Your task to perform on an android device: search for starred emails in the gmail app Image 0: 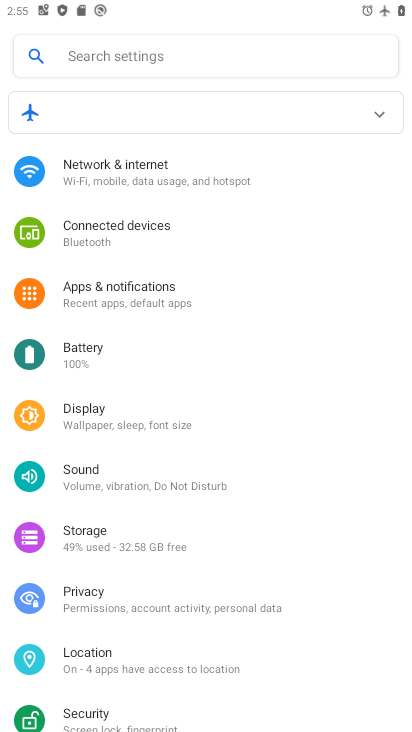
Step 0: press home button
Your task to perform on an android device: search for starred emails in the gmail app Image 1: 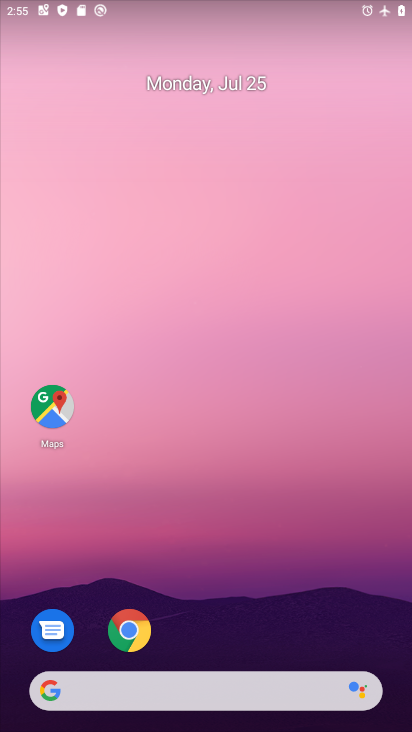
Step 1: click (234, 183)
Your task to perform on an android device: search for starred emails in the gmail app Image 2: 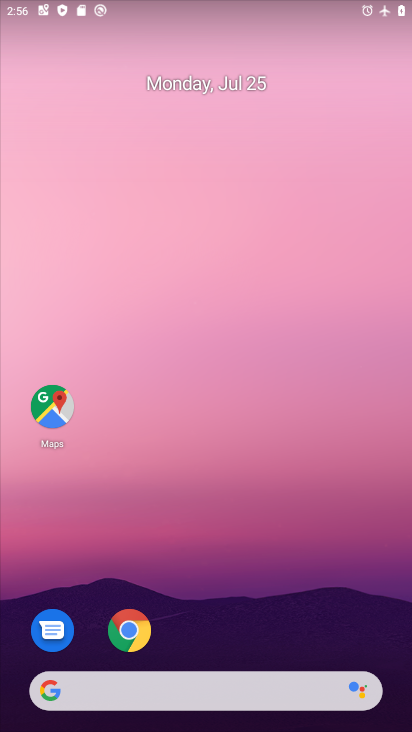
Step 2: task complete